Your task to perform on an android device: allow notifications from all sites in the chrome app Image 0: 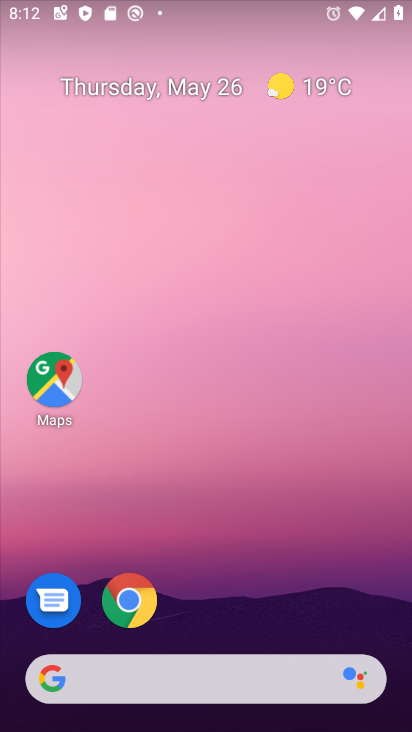
Step 0: press home button
Your task to perform on an android device: allow notifications from all sites in the chrome app Image 1: 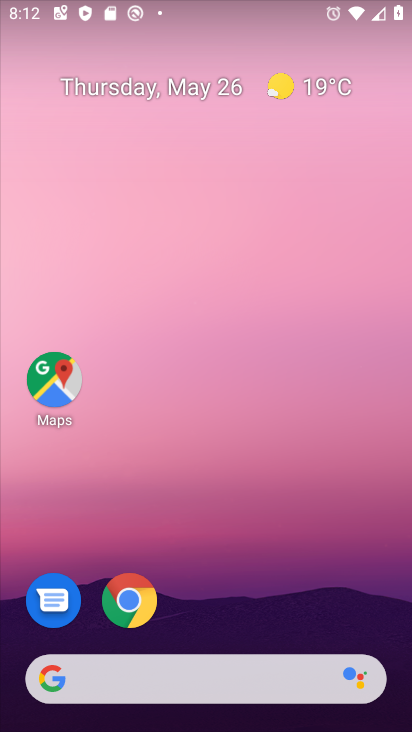
Step 1: click (129, 598)
Your task to perform on an android device: allow notifications from all sites in the chrome app Image 2: 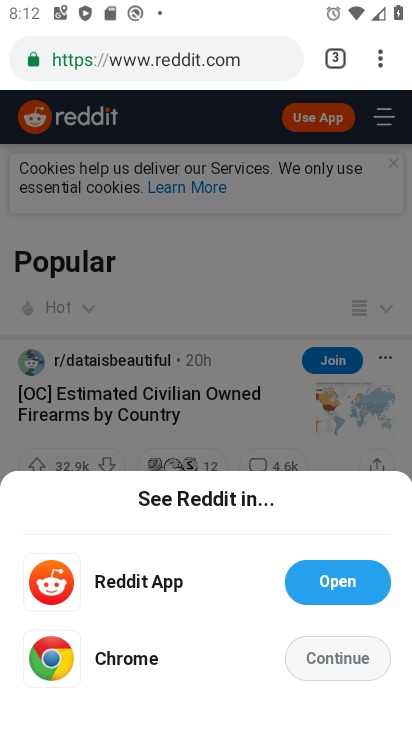
Step 2: drag from (383, 55) to (189, 632)
Your task to perform on an android device: allow notifications from all sites in the chrome app Image 3: 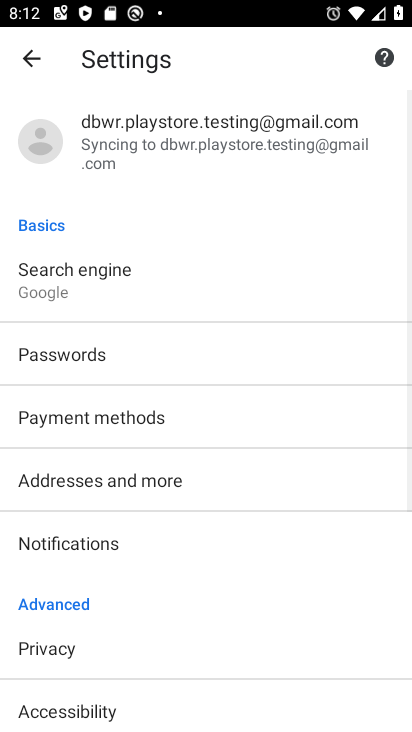
Step 3: drag from (220, 601) to (228, 305)
Your task to perform on an android device: allow notifications from all sites in the chrome app Image 4: 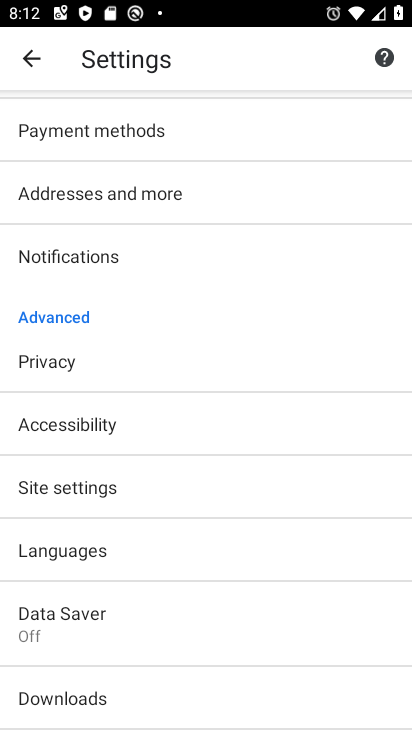
Step 4: click (66, 499)
Your task to perform on an android device: allow notifications from all sites in the chrome app Image 5: 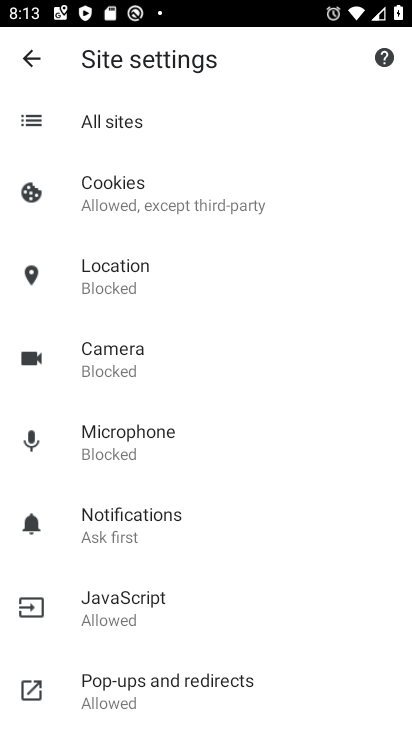
Step 5: click (129, 521)
Your task to perform on an android device: allow notifications from all sites in the chrome app Image 6: 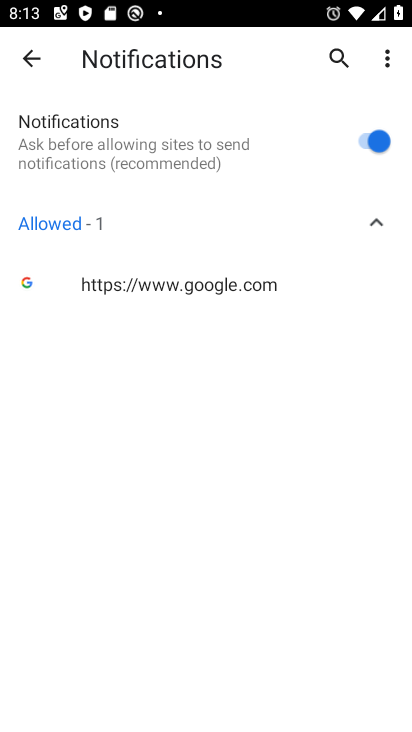
Step 6: task complete